Your task to perform on an android device: Toggle the flashlight Image 0: 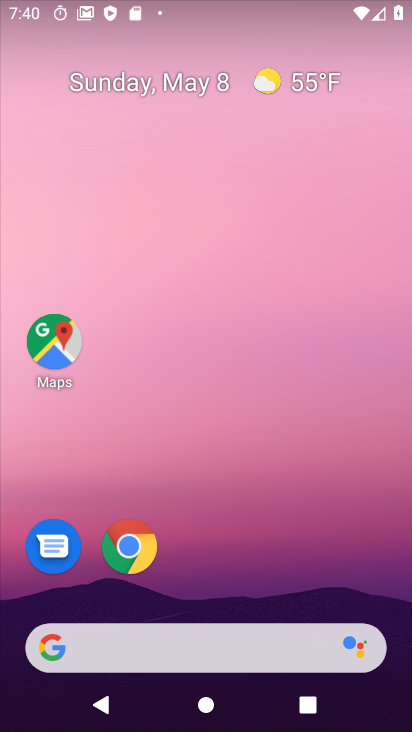
Step 0: drag from (217, 559) to (205, 52)
Your task to perform on an android device: Toggle the flashlight Image 1: 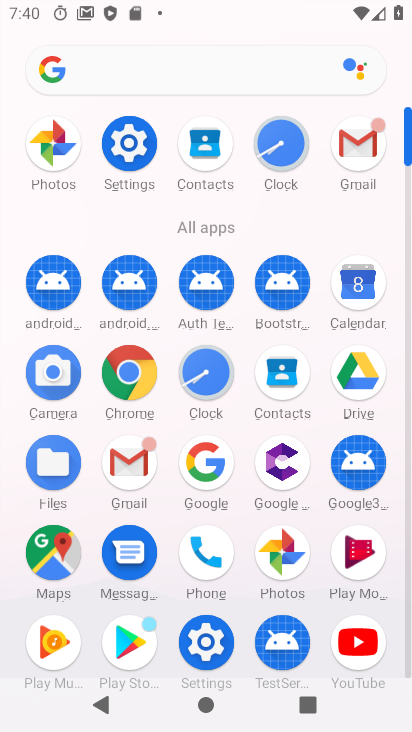
Step 1: click (126, 128)
Your task to perform on an android device: Toggle the flashlight Image 2: 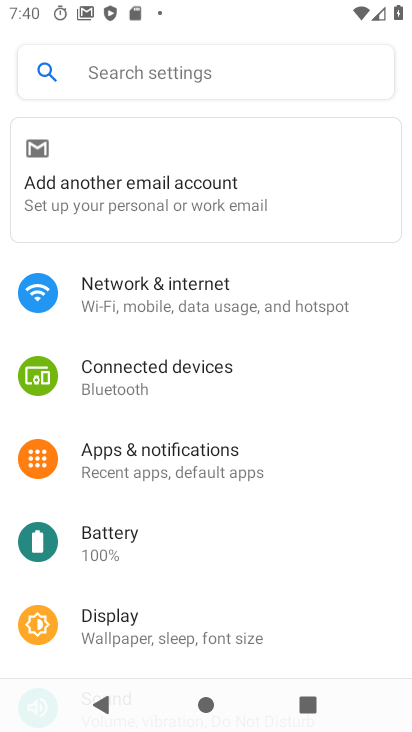
Step 2: click (176, 68)
Your task to perform on an android device: Toggle the flashlight Image 3: 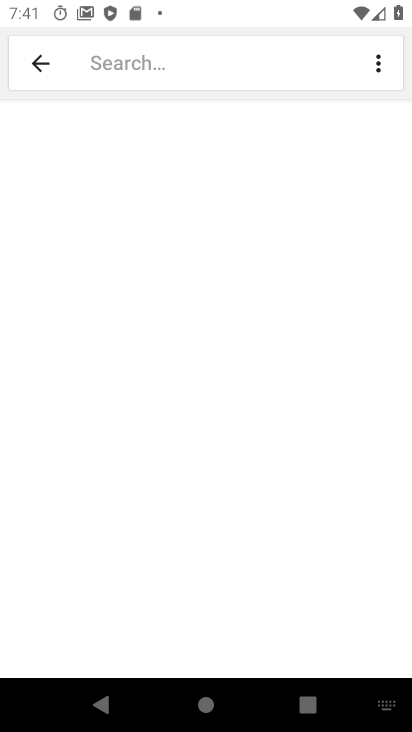
Step 3: type "Flashlight"
Your task to perform on an android device: Toggle the flashlight Image 4: 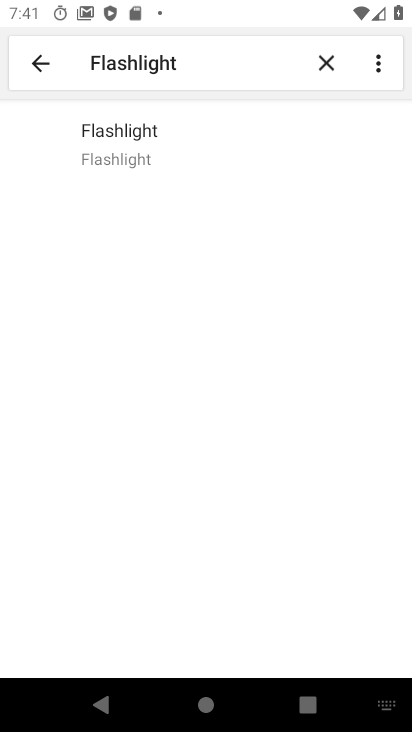
Step 4: click (130, 146)
Your task to perform on an android device: Toggle the flashlight Image 5: 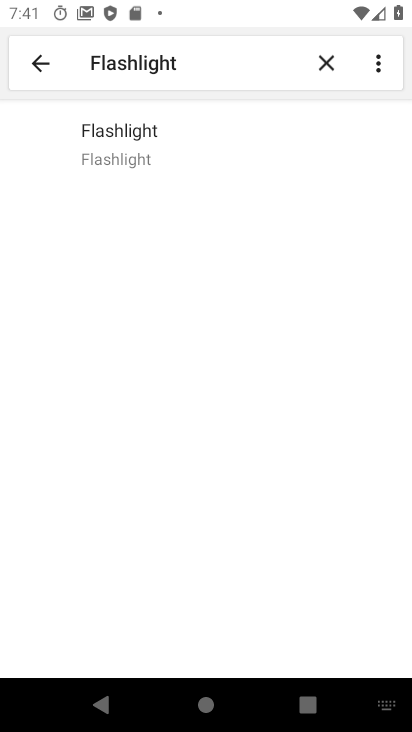
Step 5: task complete